Your task to perform on an android device: move an email to a new category in the gmail app Image 0: 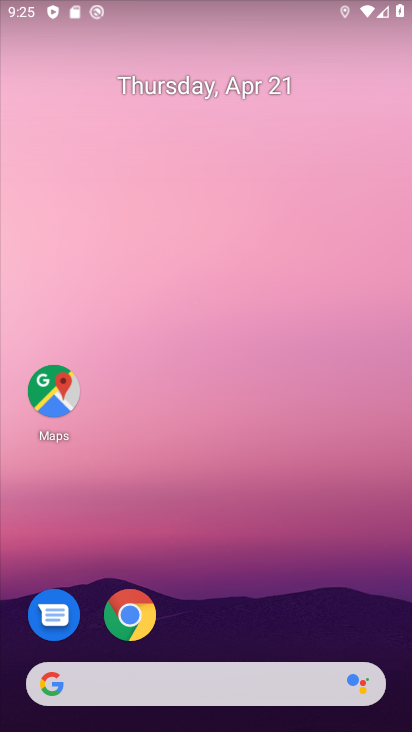
Step 0: drag from (197, 704) to (197, 130)
Your task to perform on an android device: move an email to a new category in the gmail app Image 1: 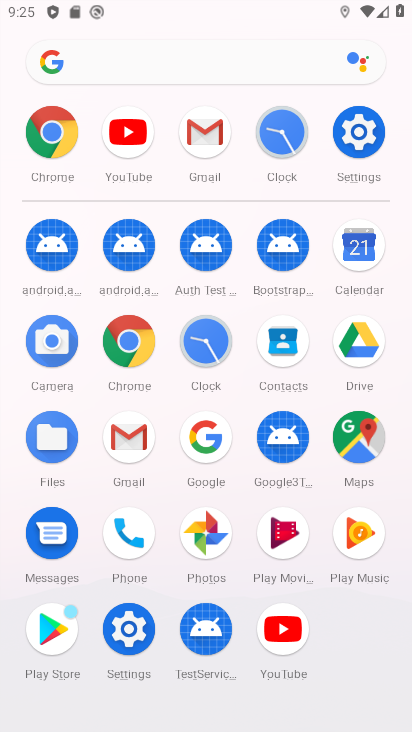
Step 1: click (204, 133)
Your task to perform on an android device: move an email to a new category in the gmail app Image 2: 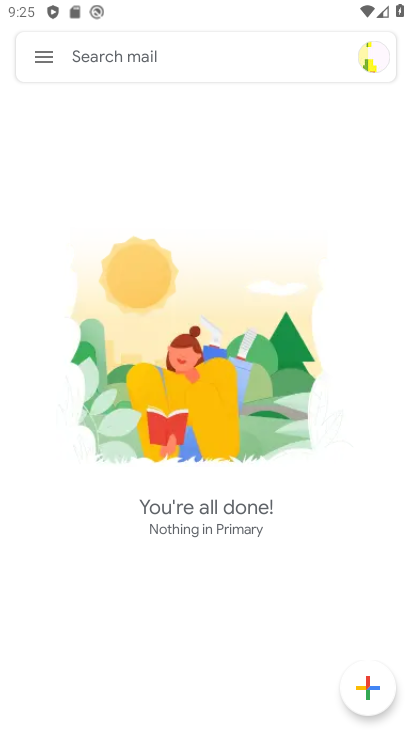
Step 2: task complete